Your task to perform on an android device: Go to Amazon Image 0: 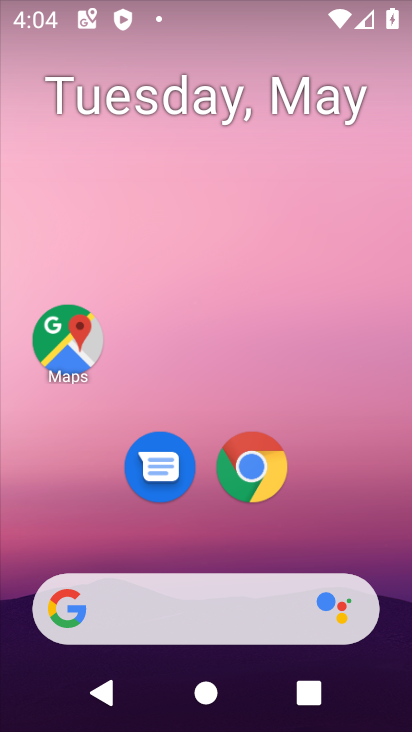
Step 0: click (271, 483)
Your task to perform on an android device: Go to Amazon Image 1: 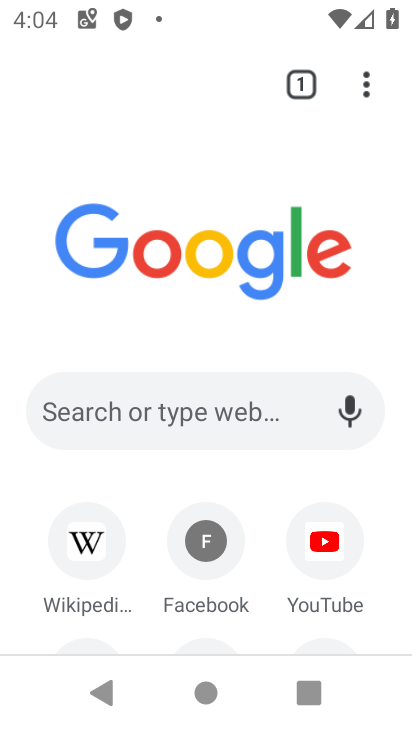
Step 1: drag from (258, 569) to (310, 267)
Your task to perform on an android device: Go to Amazon Image 2: 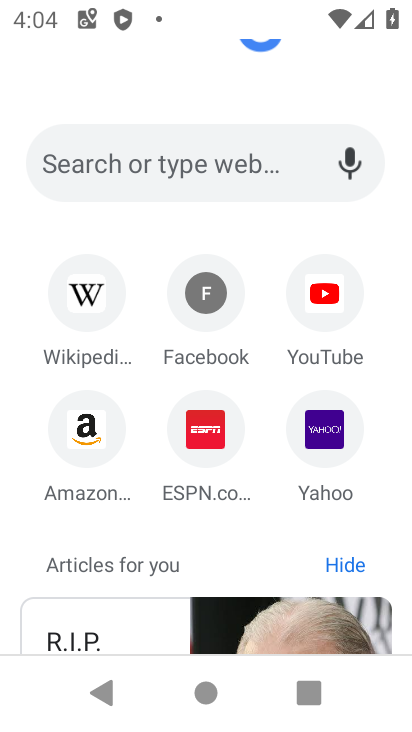
Step 2: click (252, 150)
Your task to perform on an android device: Go to Amazon Image 3: 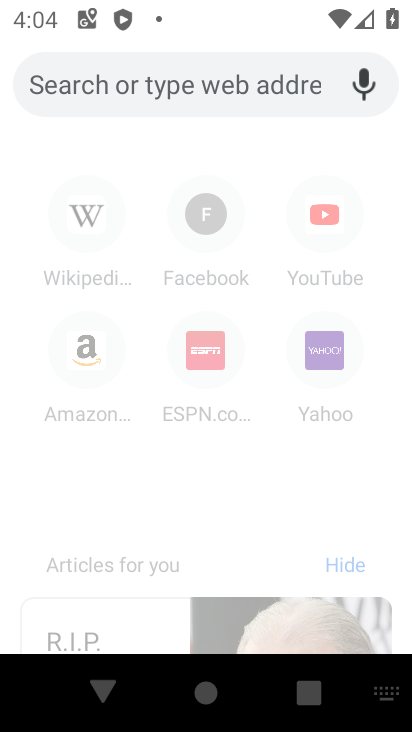
Step 3: click (86, 364)
Your task to perform on an android device: Go to Amazon Image 4: 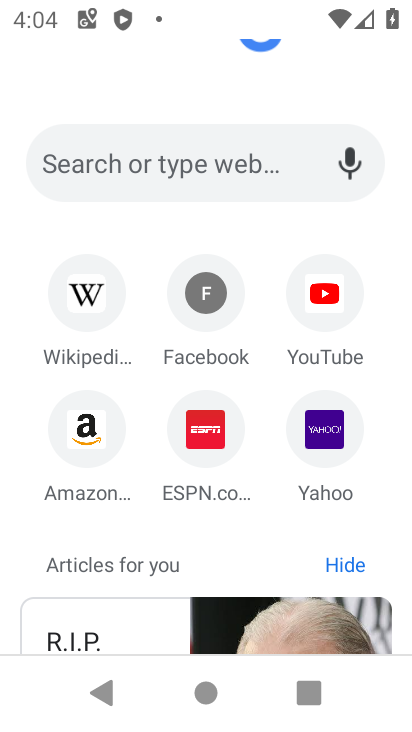
Step 4: click (75, 432)
Your task to perform on an android device: Go to Amazon Image 5: 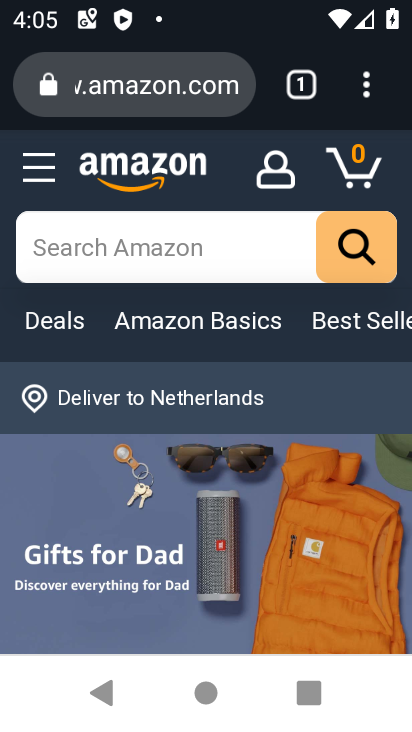
Step 5: task complete